Your task to perform on an android device: Open sound settings Image 0: 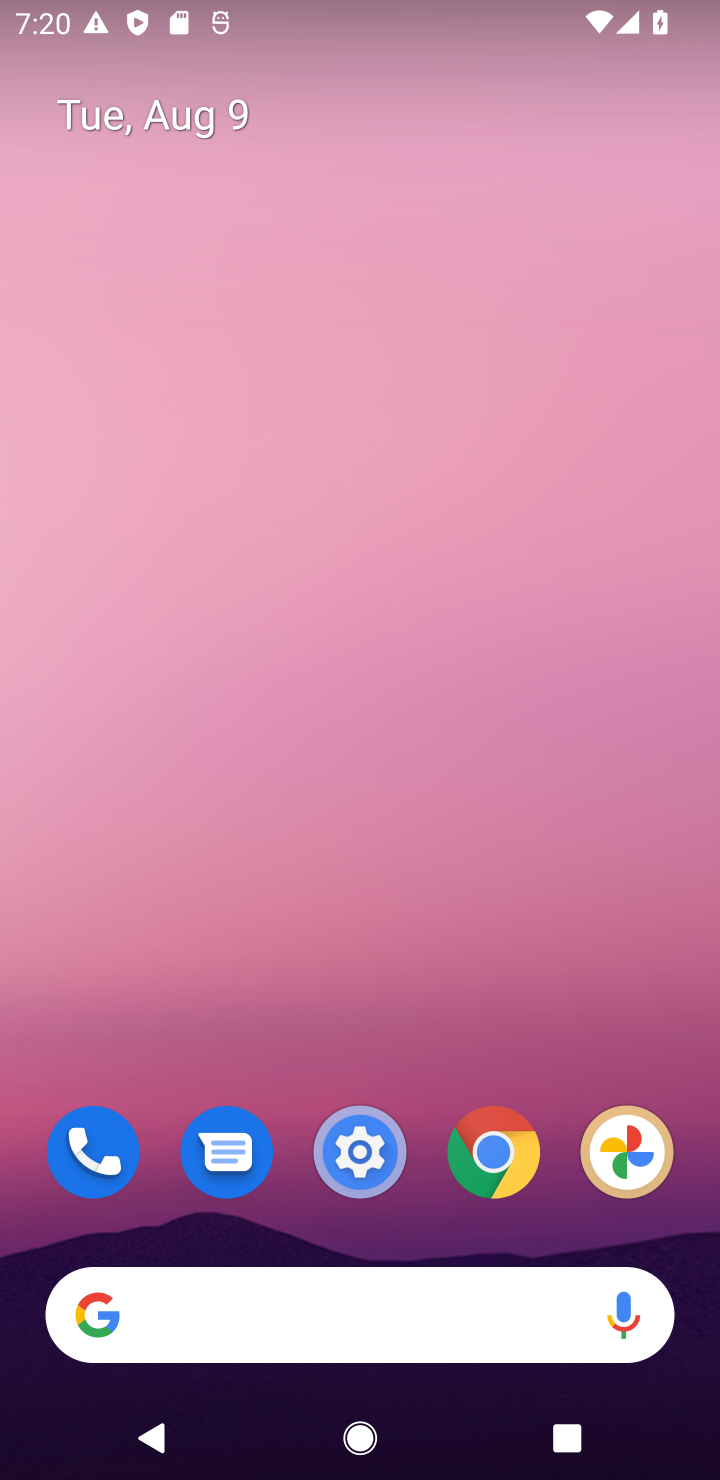
Step 0: click (374, 1142)
Your task to perform on an android device: Open sound settings Image 1: 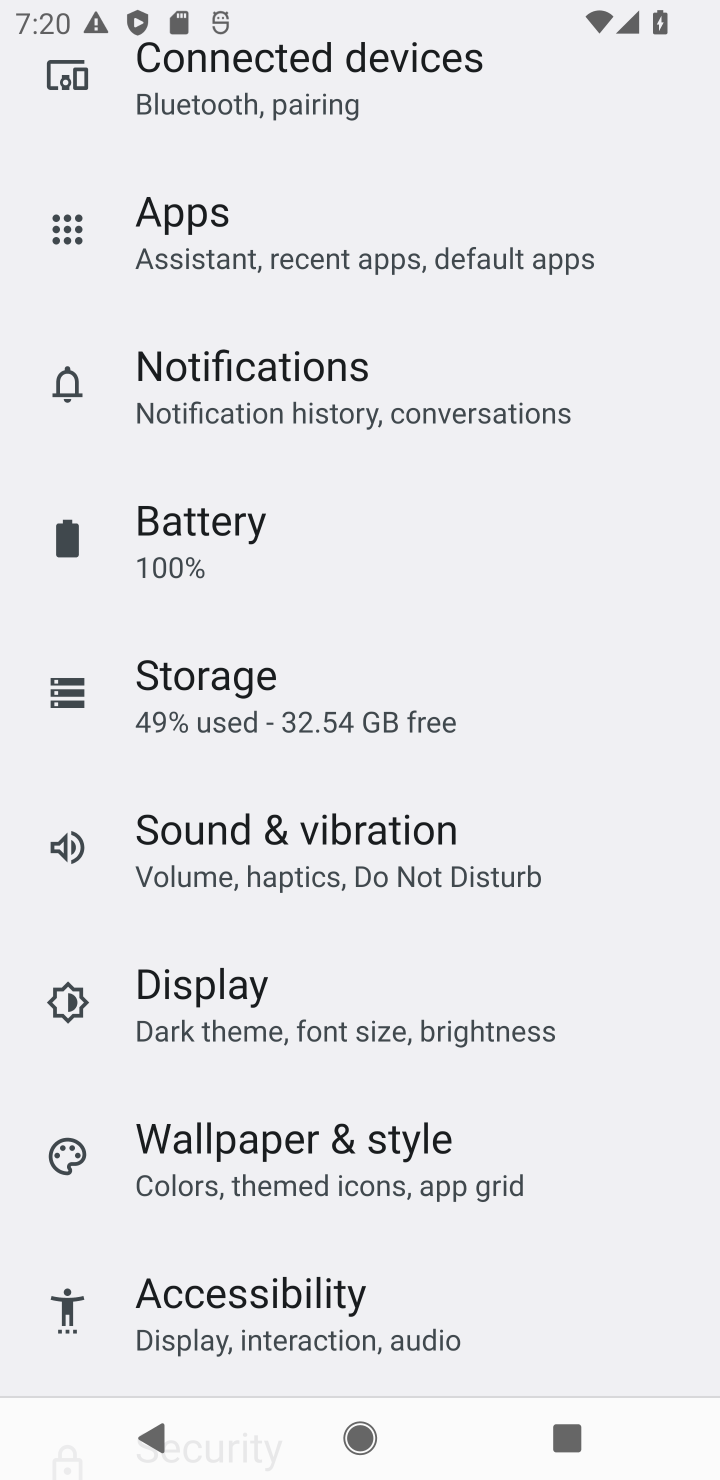
Step 1: drag from (372, 206) to (397, 741)
Your task to perform on an android device: Open sound settings Image 2: 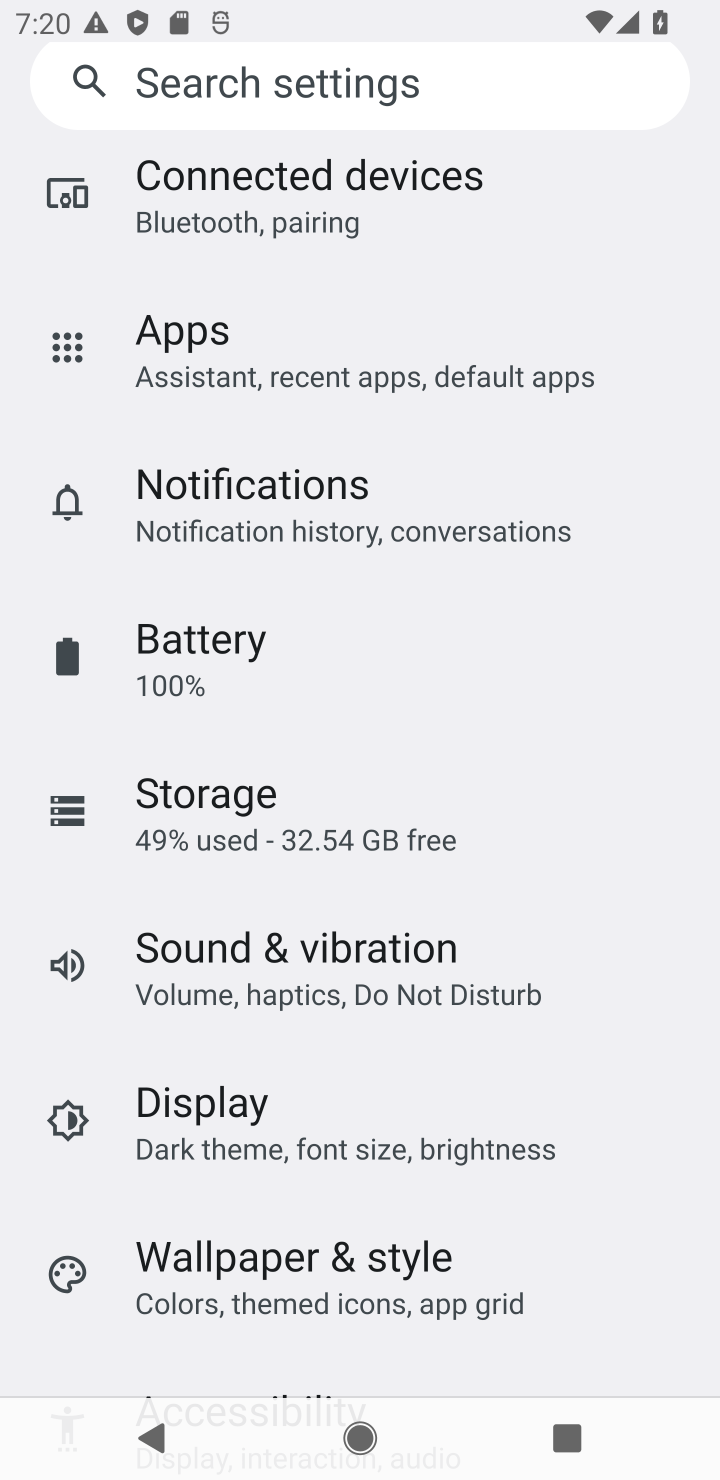
Step 2: click (380, 931)
Your task to perform on an android device: Open sound settings Image 3: 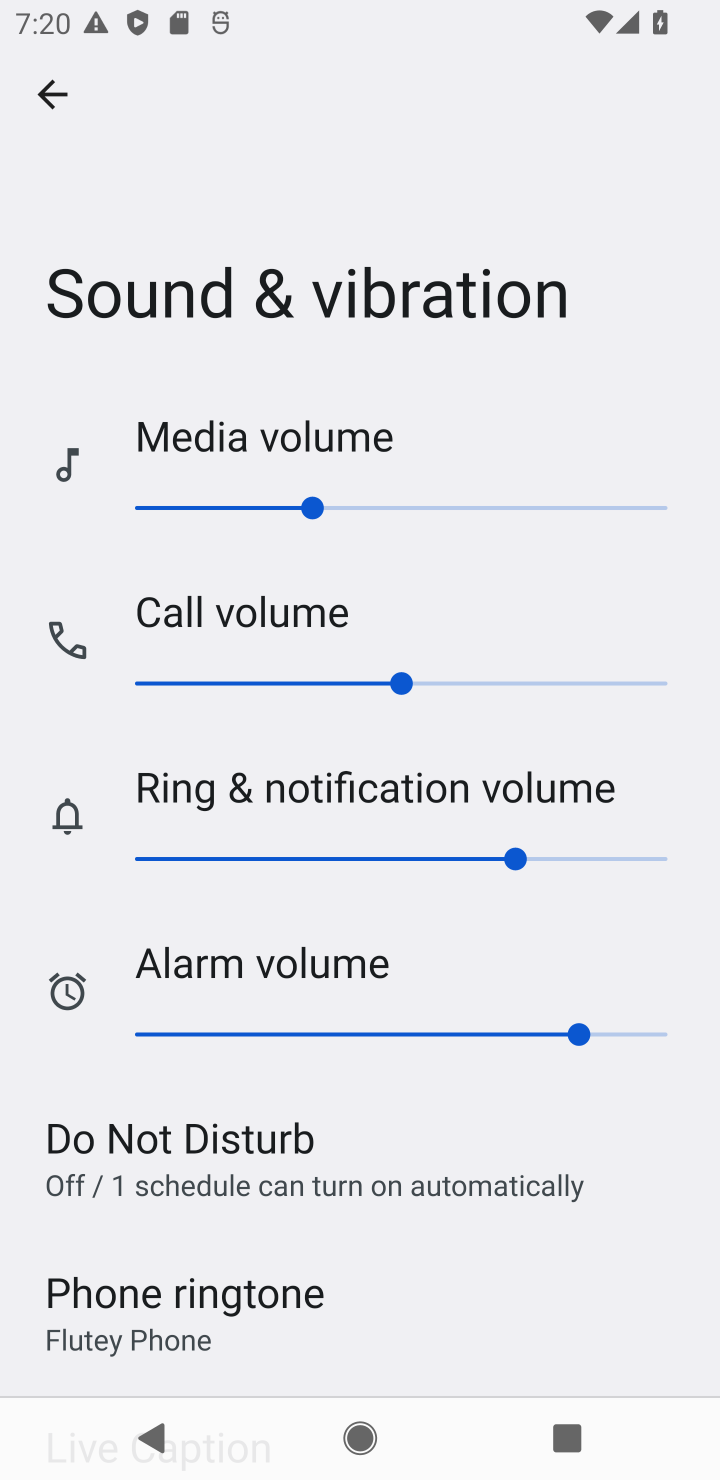
Step 3: task complete